Your task to perform on an android device: toggle data saver in the chrome app Image 0: 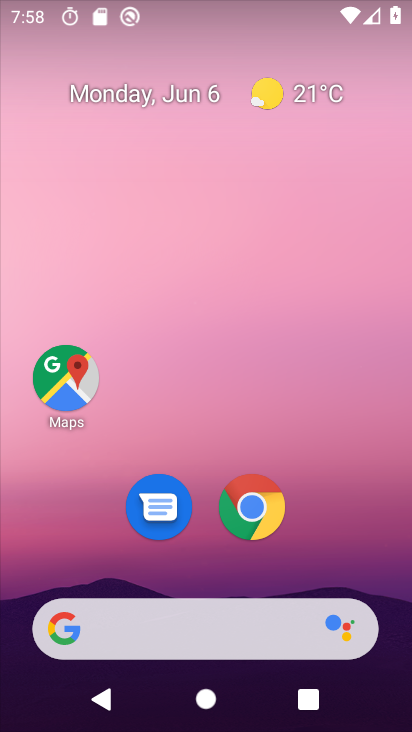
Step 0: click (247, 505)
Your task to perform on an android device: toggle data saver in the chrome app Image 1: 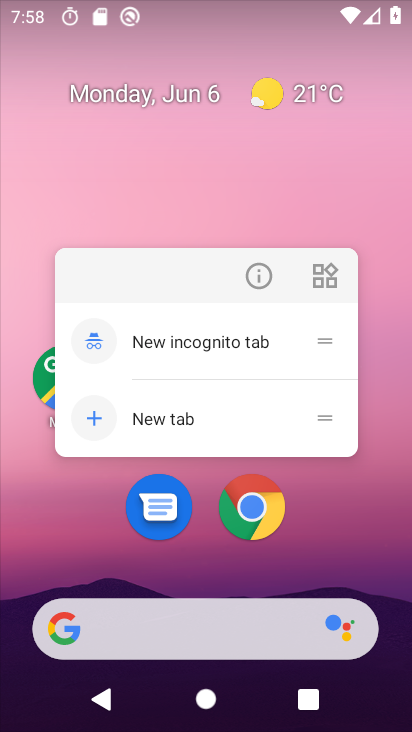
Step 1: click (247, 505)
Your task to perform on an android device: toggle data saver in the chrome app Image 2: 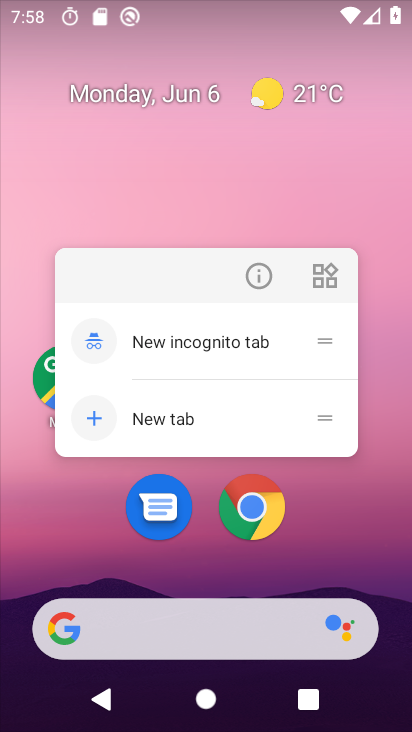
Step 2: click (239, 485)
Your task to perform on an android device: toggle data saver in the chrome app Image 3: 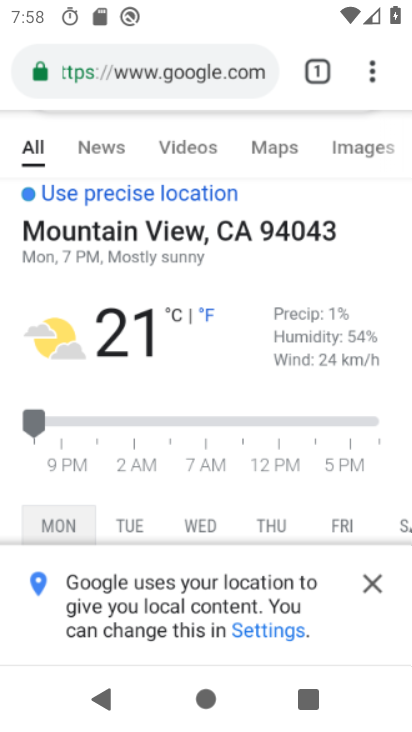
Step 3: drag from (369, 63) to (174, 510)
Your task to perform on an android device: toggle data saver in the chrome app Image 4: 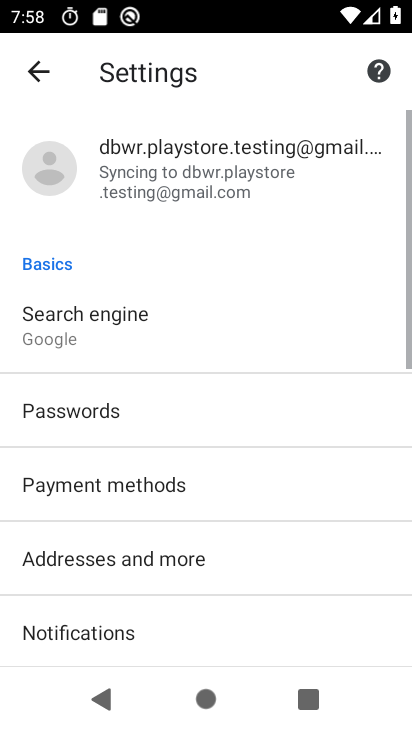
Step 4: drag from (191, 602) to (228, 17)
Your task to perform on an android device: toggle data saver in the chrome app Image 5: 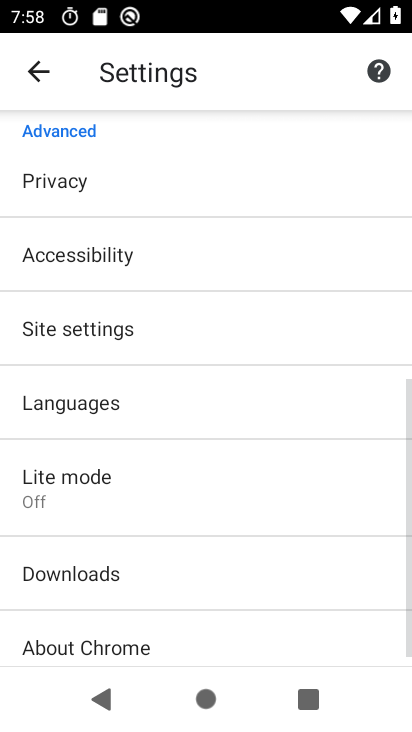
Step 5: click (68, 464)
Your task to perform on an android device: toggle data saver in the chrome app Image 6: 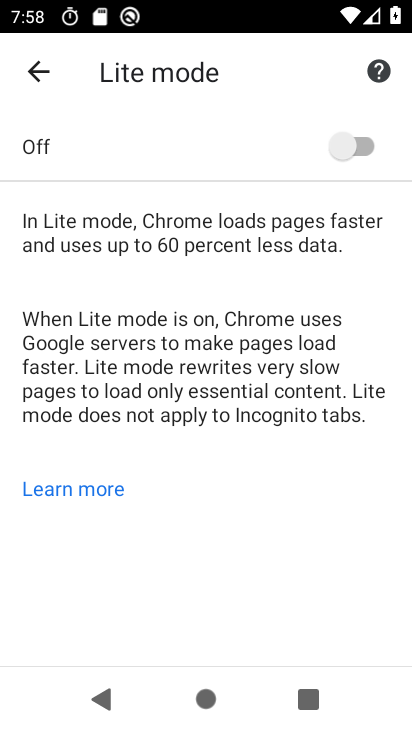
Step 6: click (226, 148)
Your task to perform on an android device: toggle data saver in the chrome app Image 7: 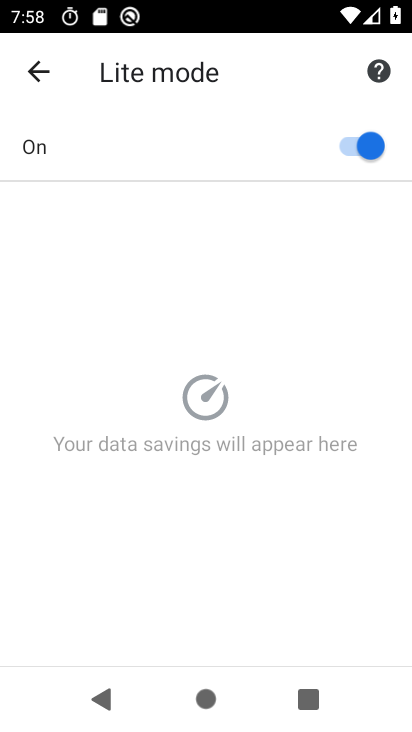
Step 7: task complete